Your task to perform on an android device: Clear the cart on target. Search for "razer blackwidow" on target, select the first entry, add it to the cart, then select checkout. Image 0: 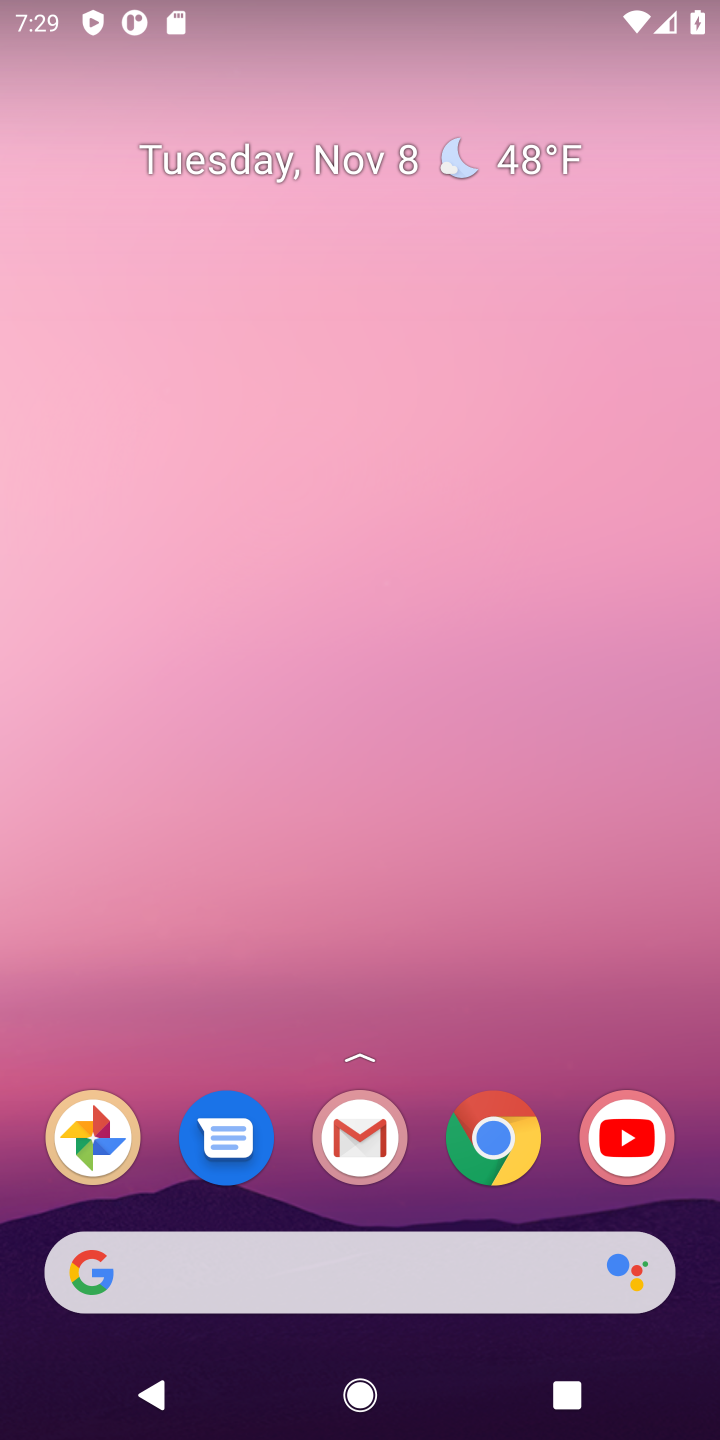
Step 0: click (500, 1148)
Your task to perform on an android device: Clear the cart on target. Search for "razer blackwidow" on target, select the first entry, add it to the cart, then select checkout. Image 1: 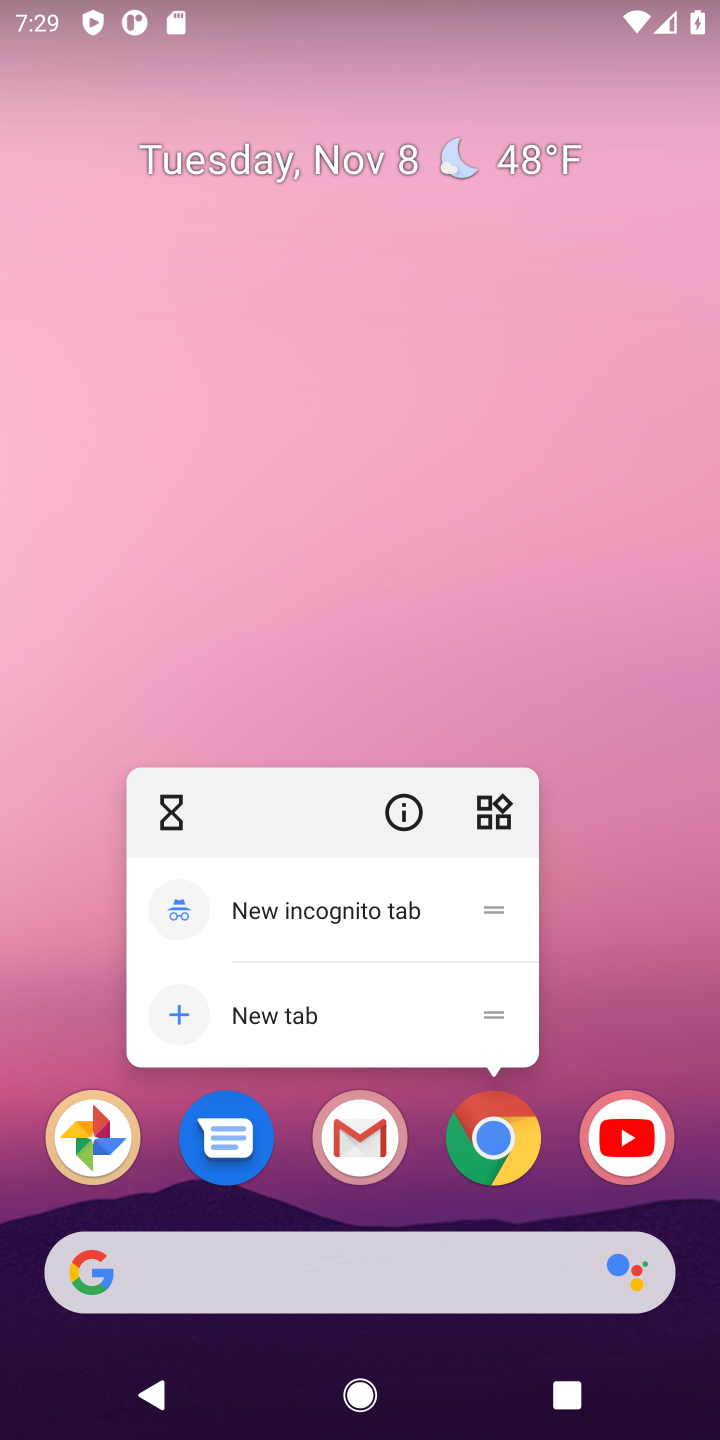
Step 1: click (500, 1146)
Your task to perform on an android device: Clear the cart on target. Search for "razer blackwidow" on target, select the first entry, add it to the cart, then select checkout. Image 2: 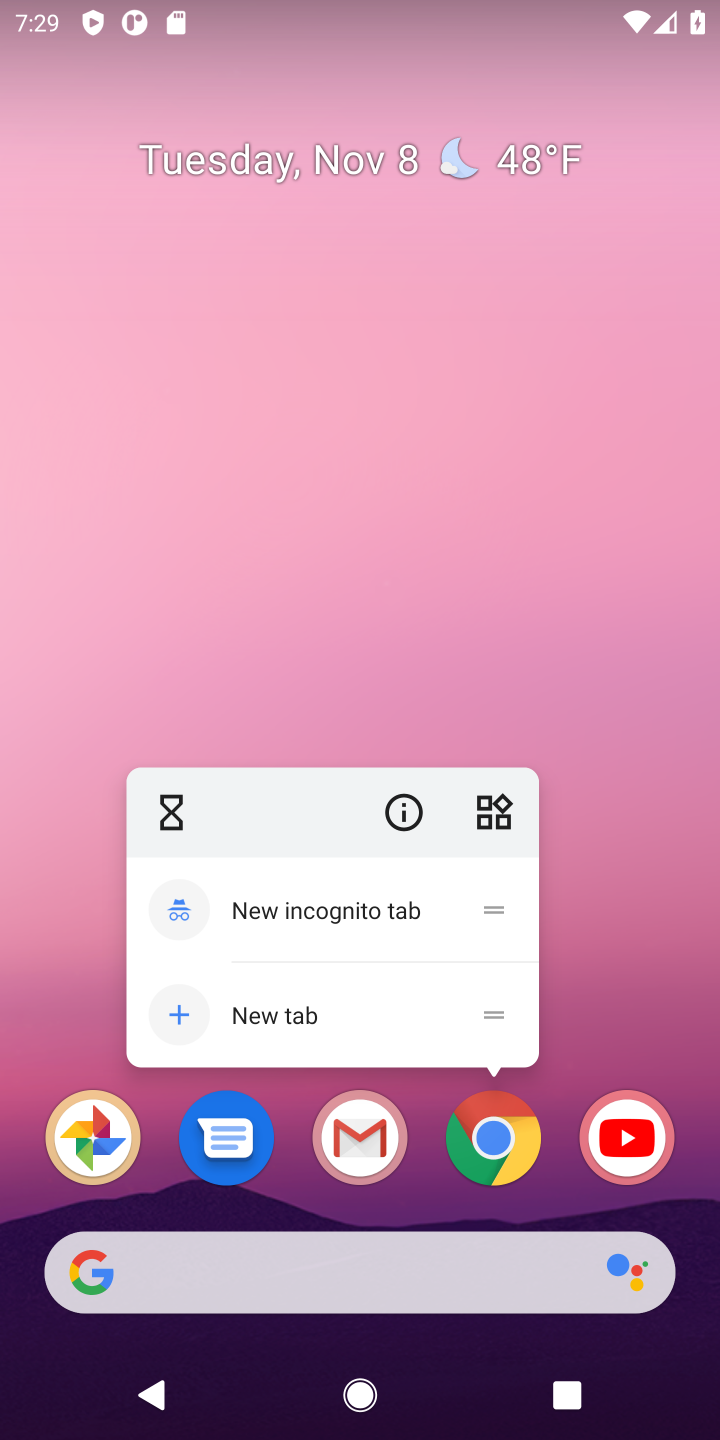
Step 2: click (484, 1152)
Your task to perform on an android device: Clear the cart on target. Search for "razer blackwidow" on target, select the first entry, add it to the cart, then select checkout. Image 3: 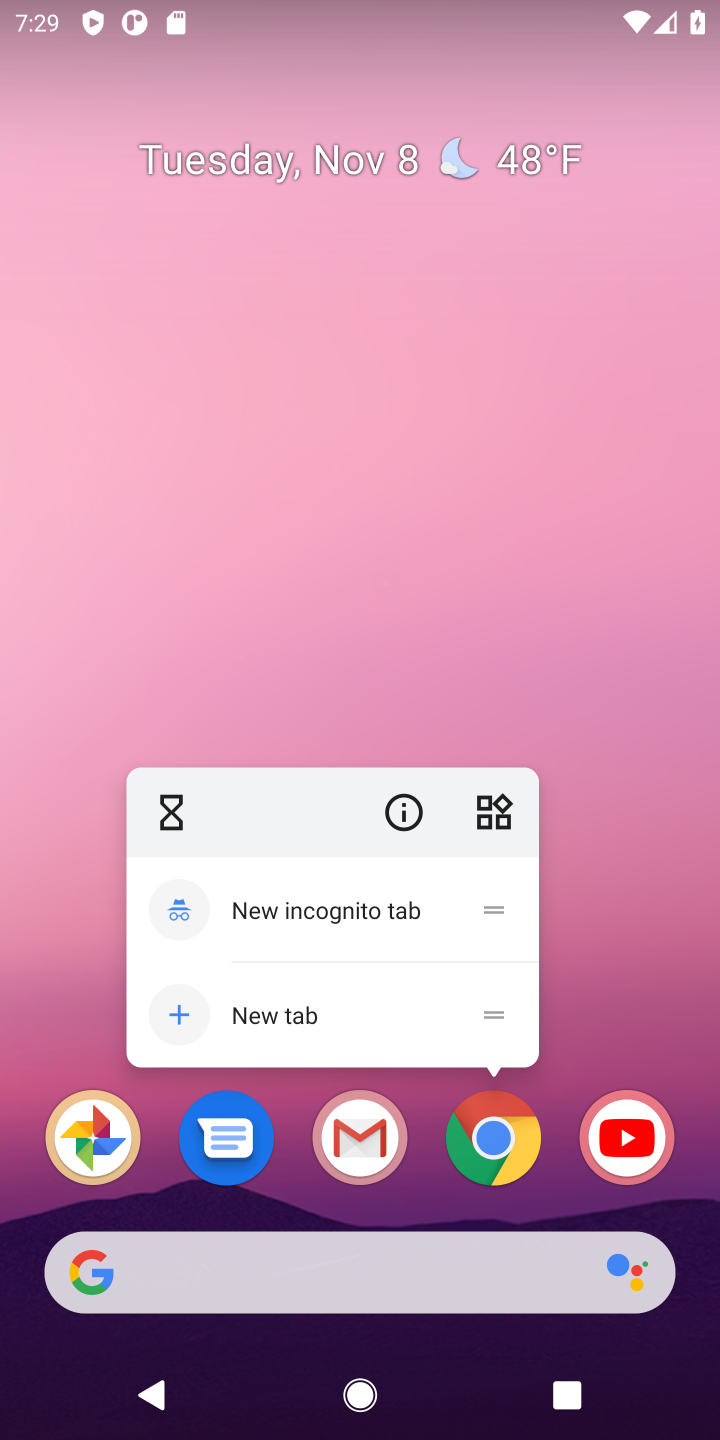
Step 3: click (505, 1149)
Your task to perform on an android device: Clear the cart on target. Search for "razer blackwidow" on target, select the first entry, add it to the cart, then select checkout. Image 4: 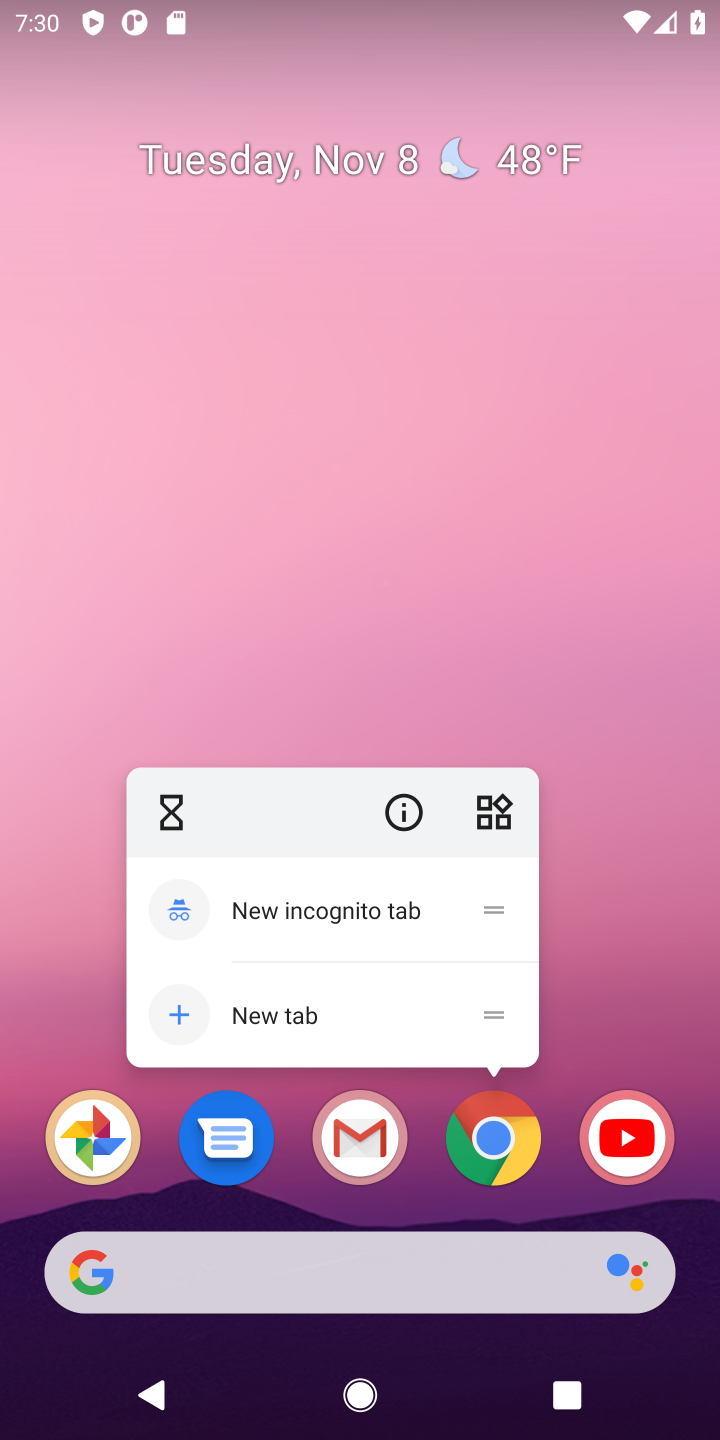
Step 4: click (498, 1129)
Your task to perform on an android device: Clear the cart on target. Search for "razer blackwidow" on target, select the first entry, add it to the cart, then select checkout. Image 5: 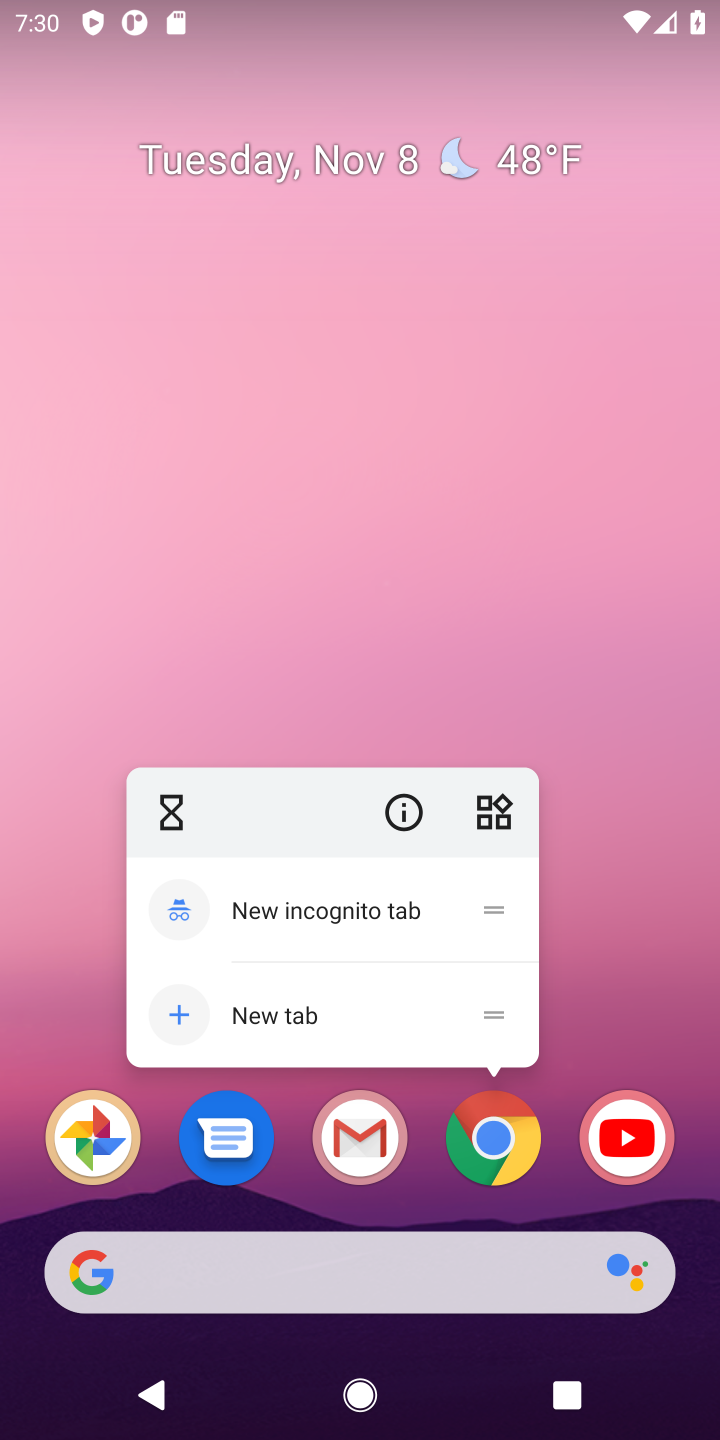
Step 5: click (498, 1137)
Your task to perform on an android device: Clear the cart on target. Search for "razer blackwidow" on target, select the first entry, add it to the cart, then select checkout. Image 6: 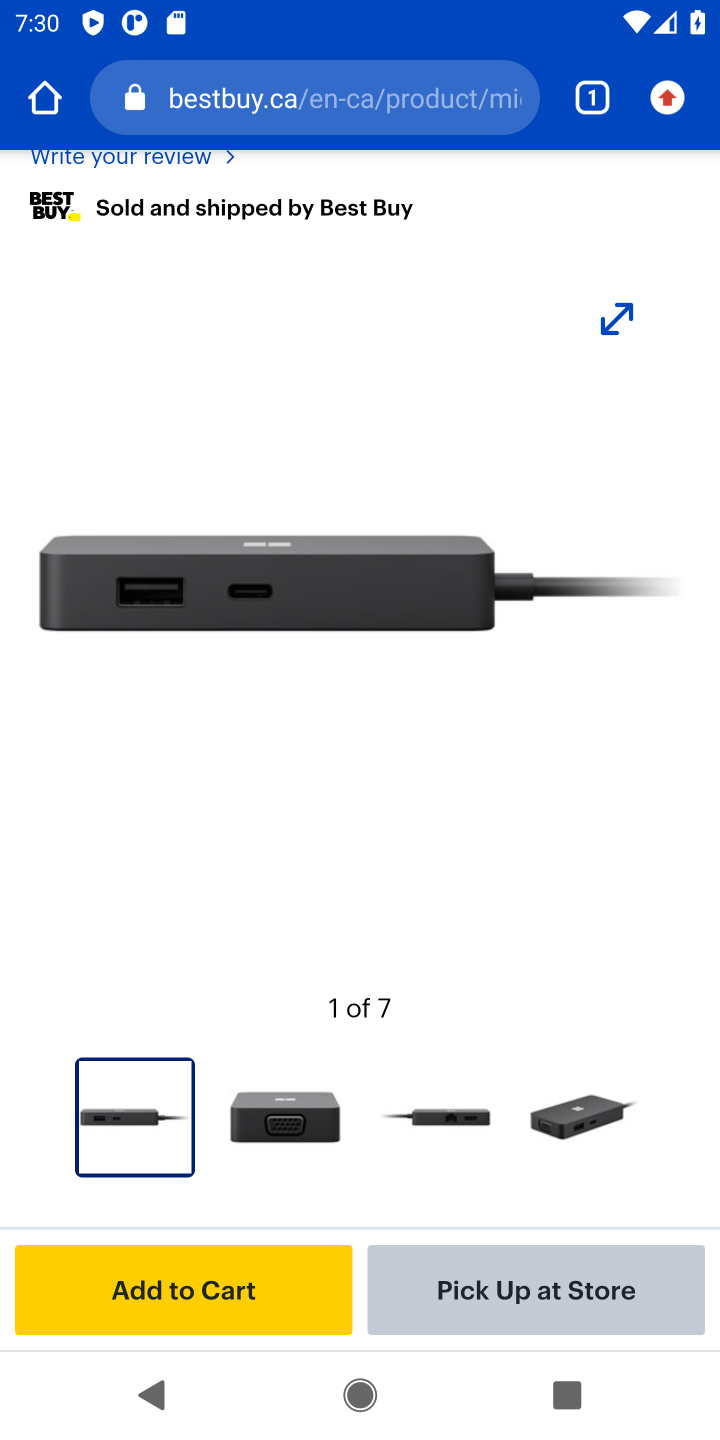
Step 6: click (306, 81)
Your task to perform on an android device: Clear the cart on target. Search for "razer blackwidow" on target, select the first entry, add it to the cart, then select checkout. Image 7: 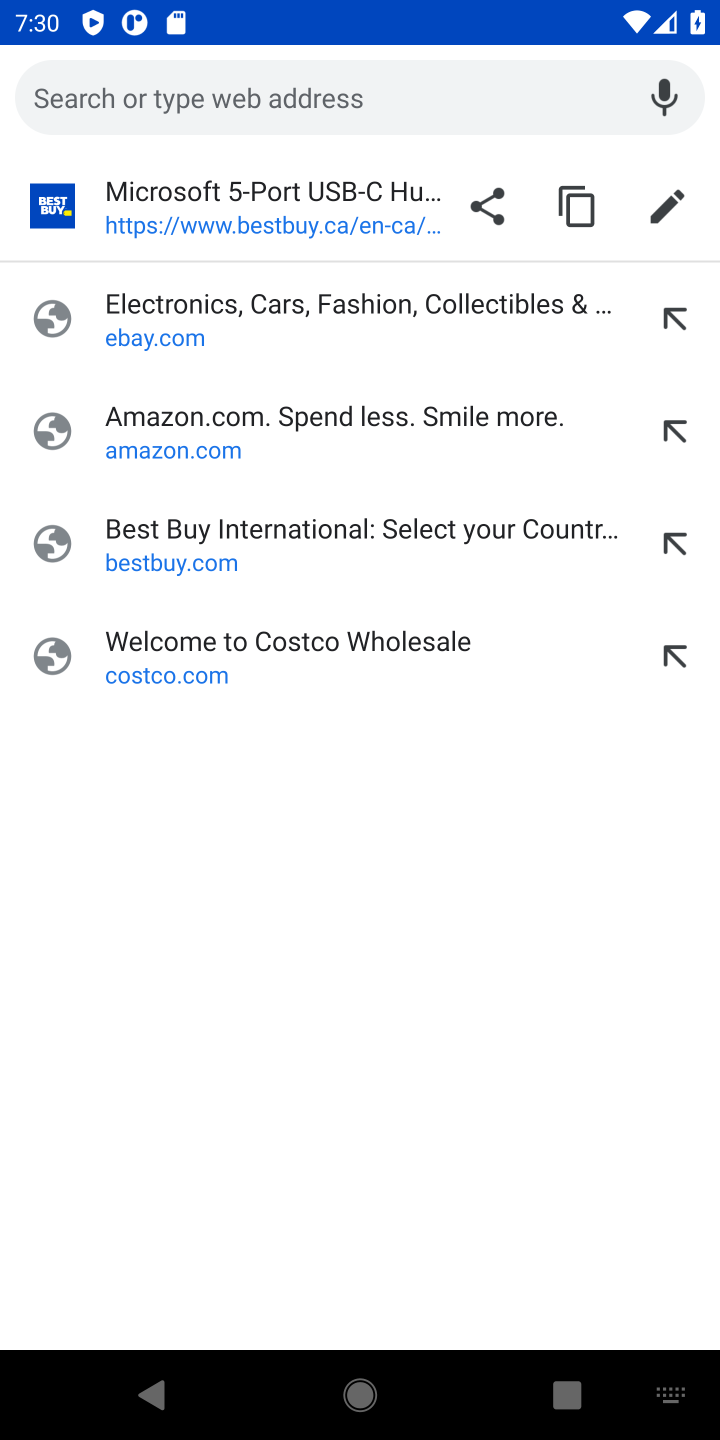
Step 7: press enter
Your task to perform on an android device: Clear the cart on target. Search for "razer blackwidow" on target, select the first entry, add it to the cart, then select checkout. Image 8: 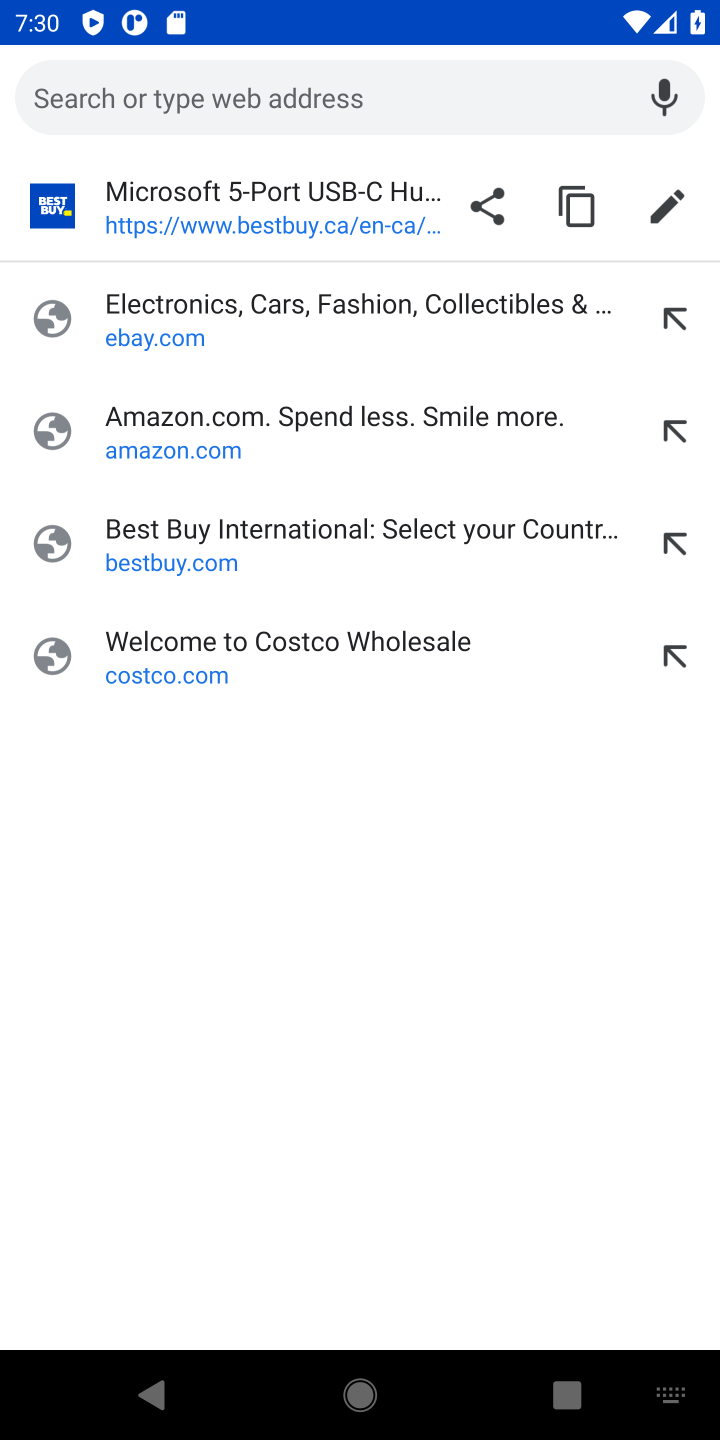
Step 8: type " target"
Your task to perform on an android device: Clear the cart on target. Search for "razer blackwidow" on target, select the first entry, add it to the cart, then select checkout. Image 9: 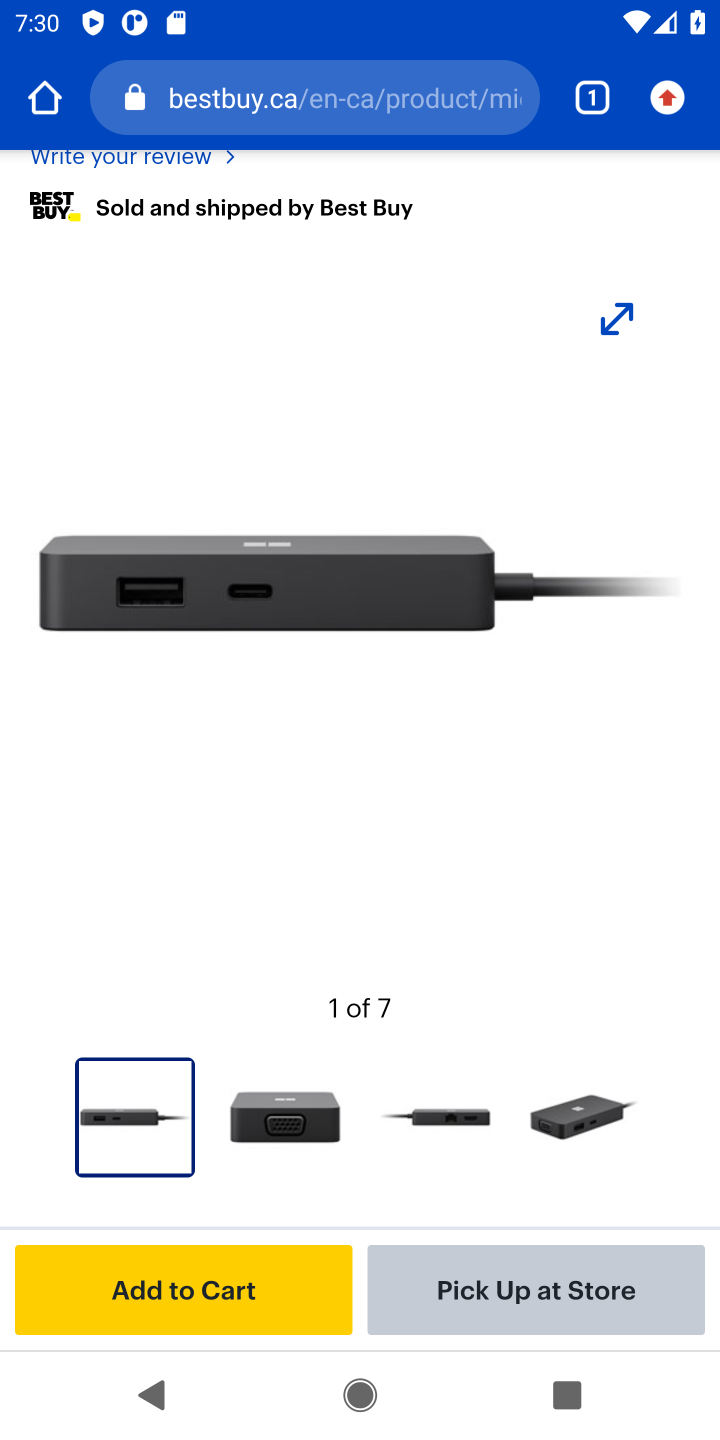
Step 9: click (339, 103)
Your task to perform on an android device: Clear the cart on target. Search for "razer blackwidow" on target, select the first entry, add it to the cart, then select checkout. Image 10: 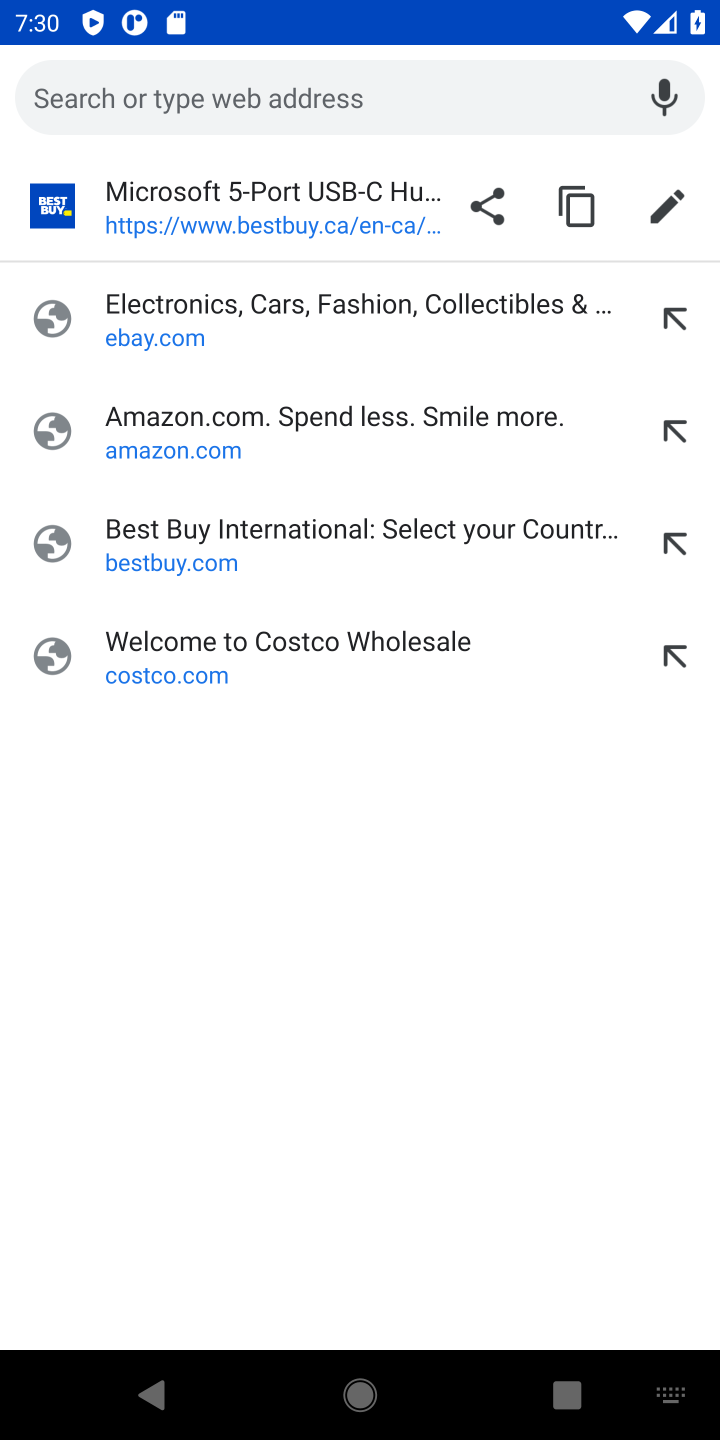
Step 10: click (326, 73)
Your task to perform on an android device: Clear the cart on target. Search for "razer blackwidow" on target, select the first entry, add it to the cart, then select checkout. Image 11: 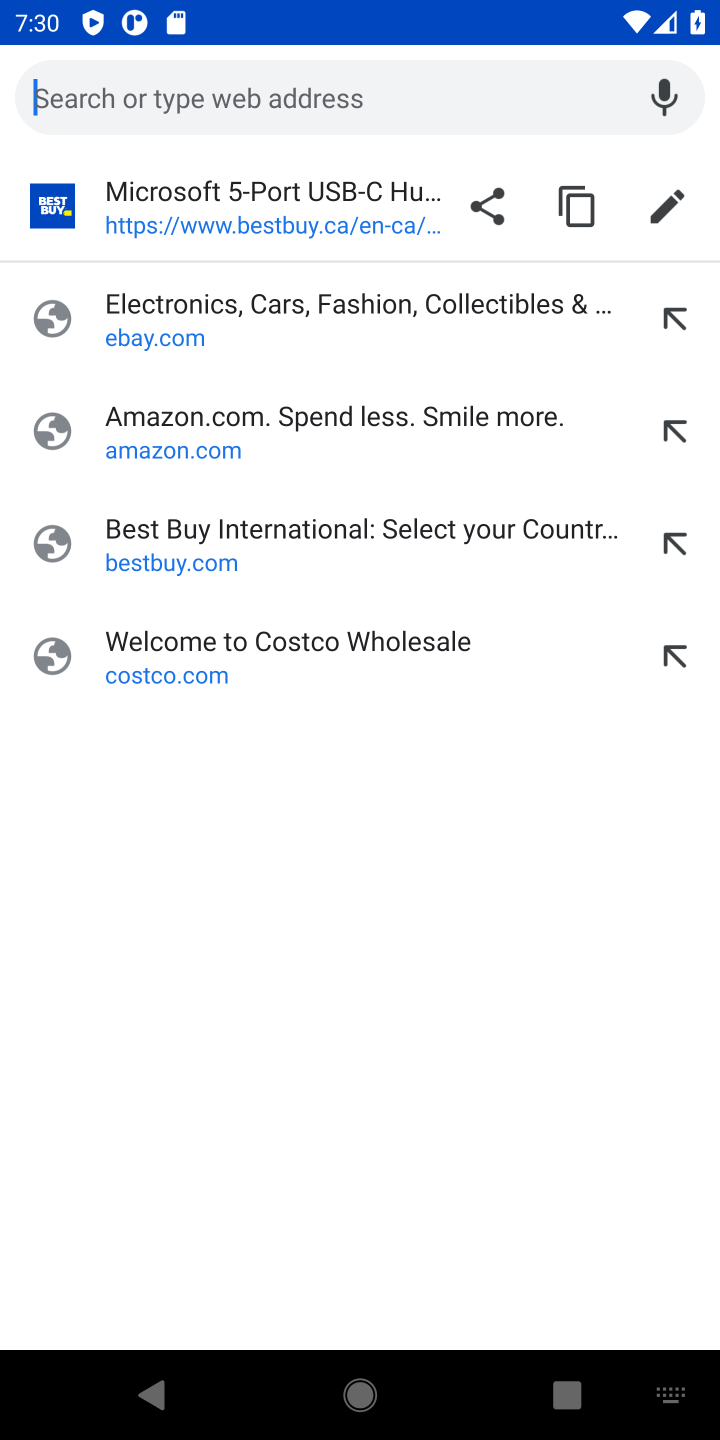
Step 11: type " target"
Your task to perform on an android device: Clear the cart on target. Search for "razer blackwidow" on target, select the first entry, add it to the cart, then select checkout. Image 12: 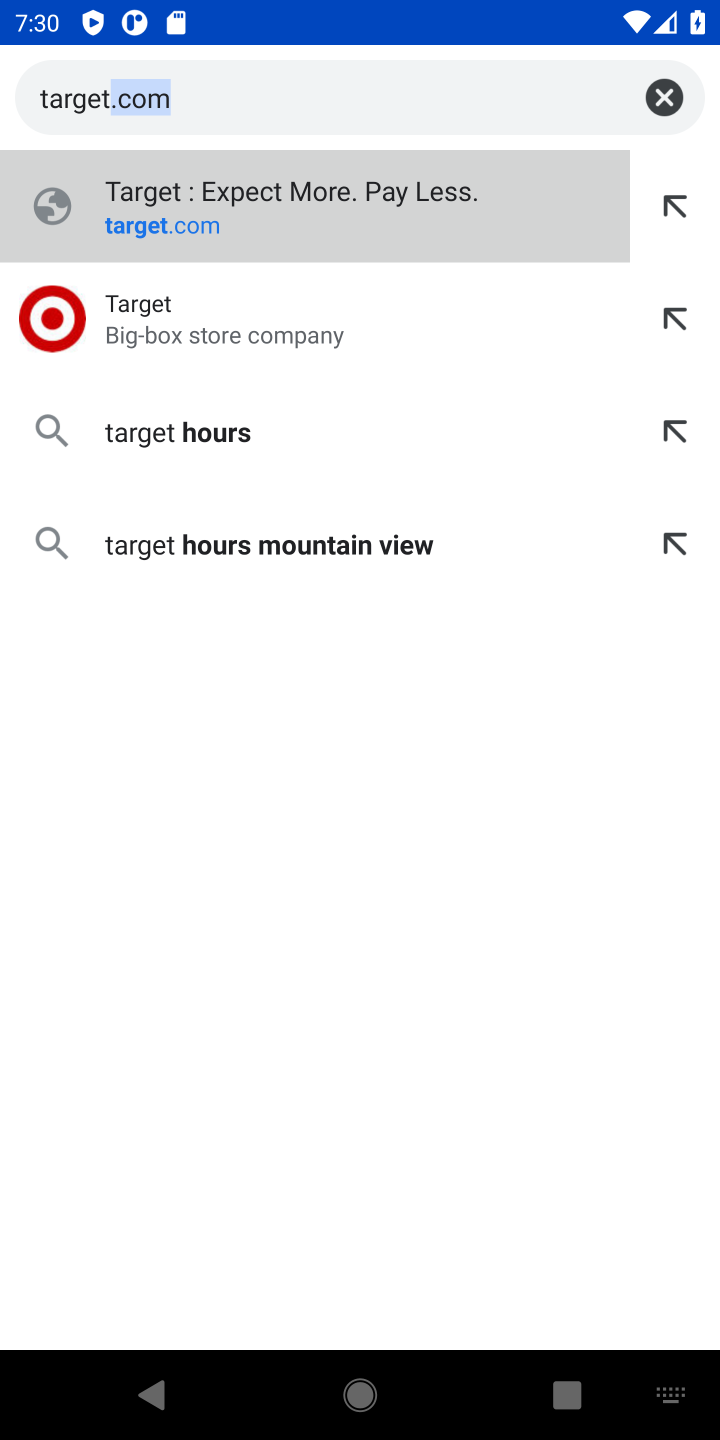
Step 12: press enter
Your task to perform on an android device: Clear the cart on target. Search for "razer blackwidow" on target, select the first entry, add it to the cart, then select checkout. Image 13: 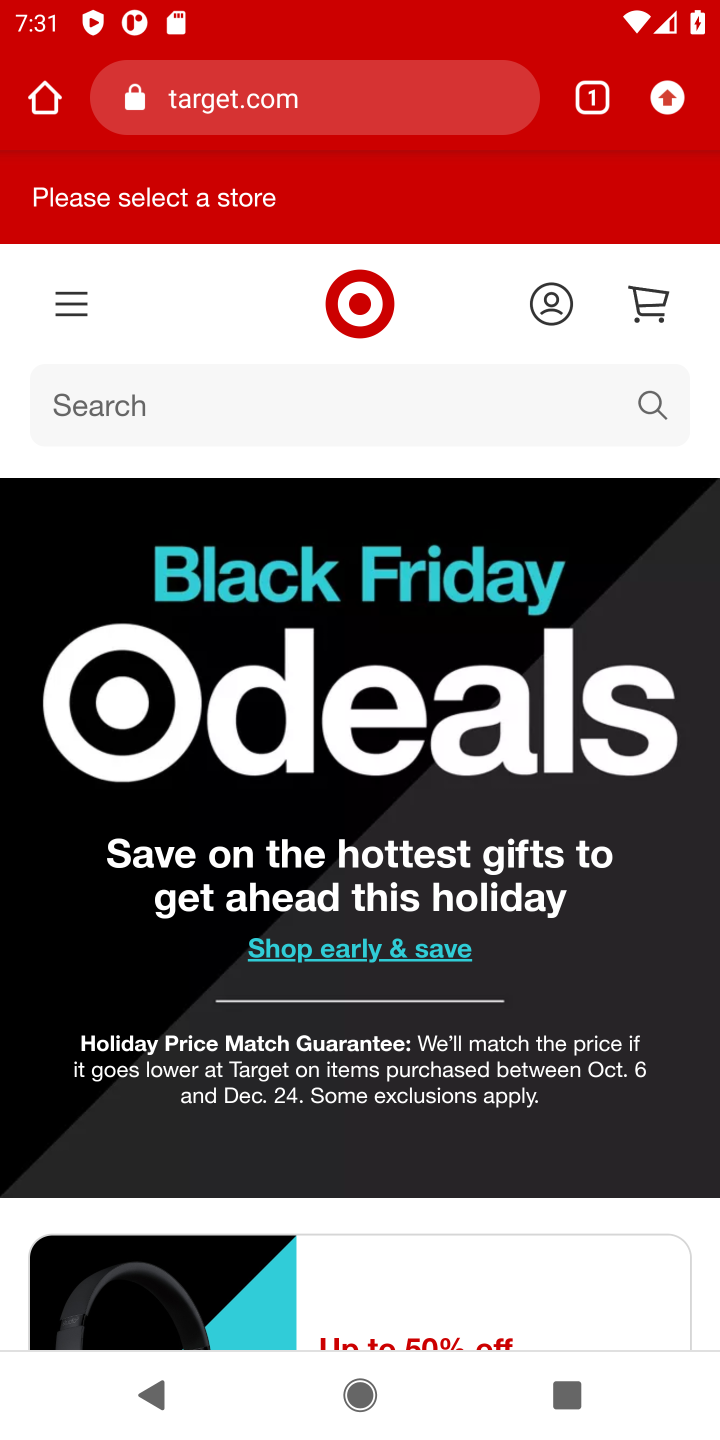
Step 13: click (332, 375)
Your task to perform on an android device: Clear the cart on target. Search for "razer blackwidow" on target, select the first entry, add it to the cart, then select checkout. Image 14: 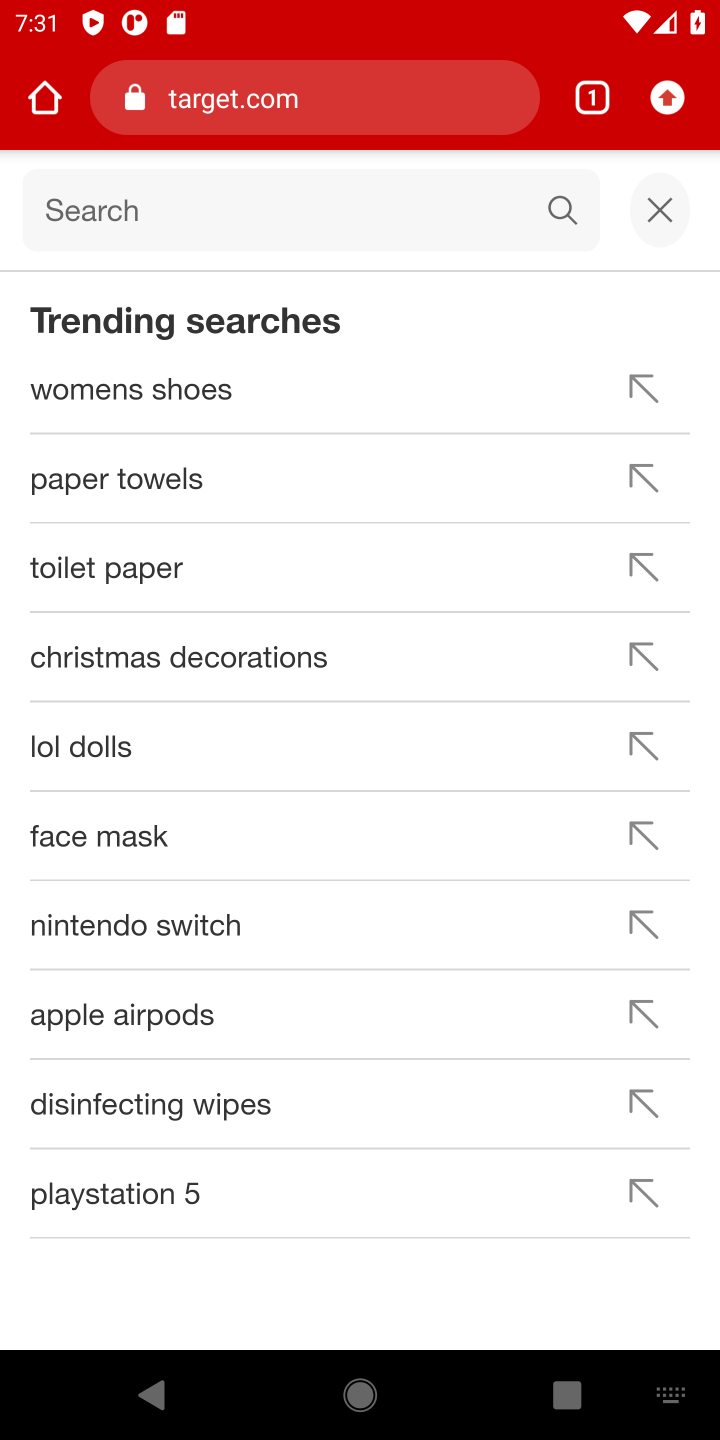
Step 14: type "razer blackwidow"
Your task to perform on an android device: Clear the cart on target. Search for "razer blackwidow" on target, select the first entry, add it to the cart, then select checkout. Image 15: 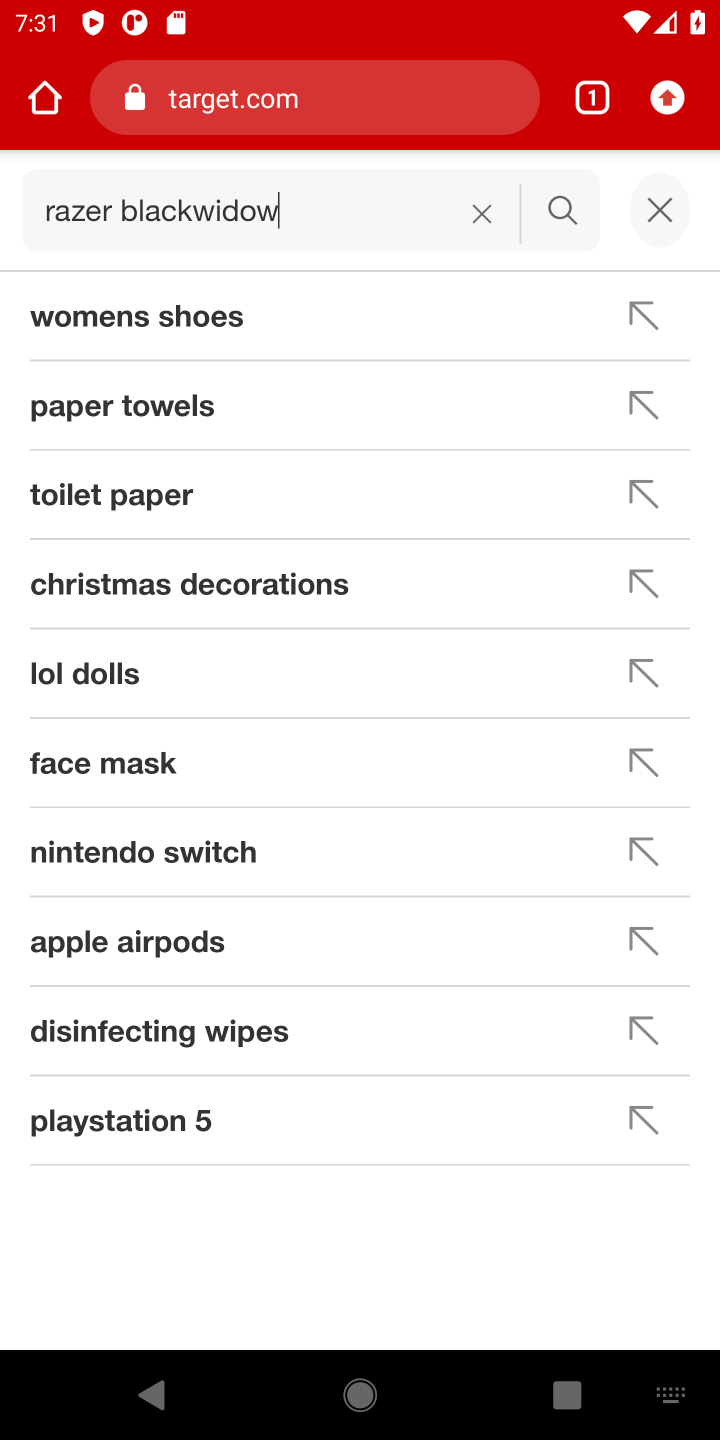
Step 15: press enter
Your task to perform on an android device: Clear the cart on target. Search for "razer blackwidow" on target, select the first entry, add it to the cart, then select checkout. Image 16: 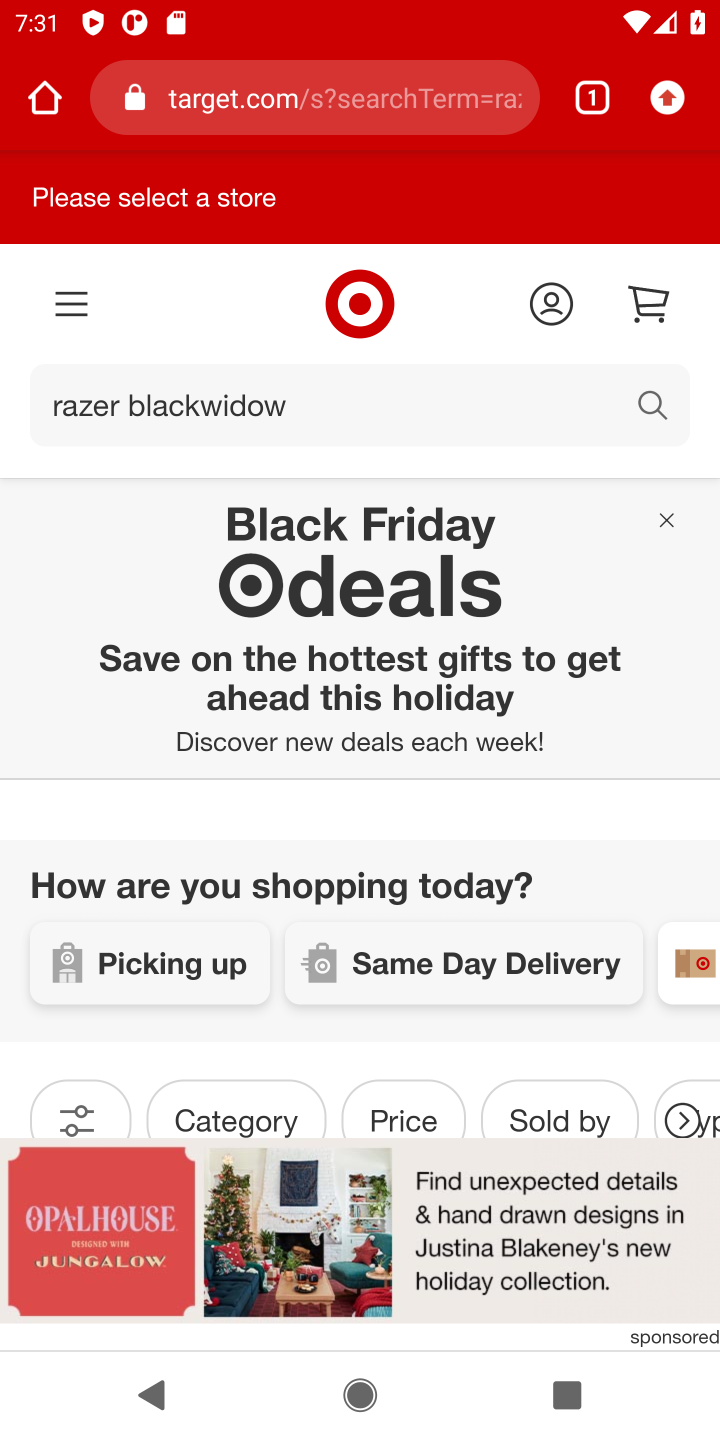
Step 16: drag from (333, 1176) to (637, 296)
Your task to perform on an android device: Clear the cart on target. Search for "razer blackwidow" on target, select the first entry, add it to the cart, then select checkout. Image 17: 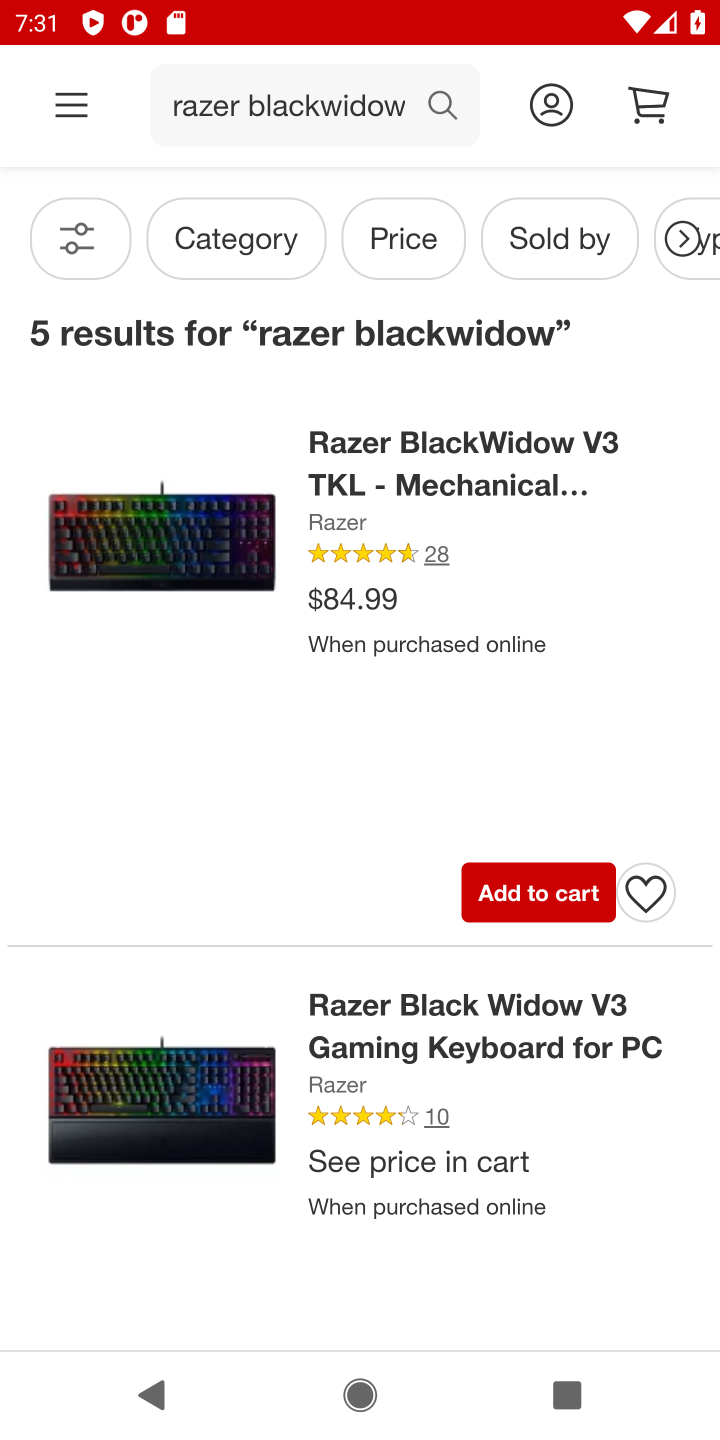
Step 17: click (527, 886)
Your task to perform on an android device: Clear the cart on target. Search for "razer blackwidow" on target, select the first entry, add it to the cart, then select checkout. Image 18: 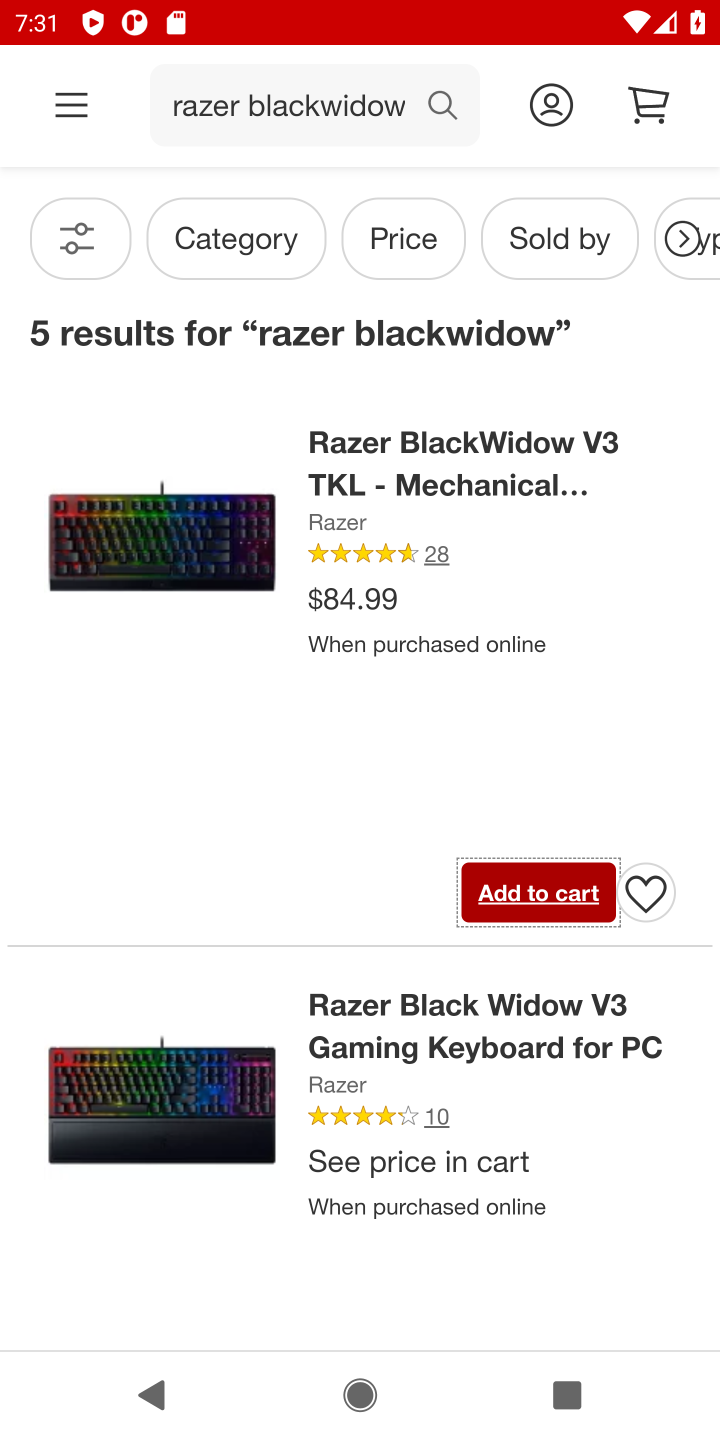
Step 18: click (562, 897)
Your task to perform on an android device: Clear the cart on target. Search for "razer blackwidow" on target, select the first entry, add it to the cart, then select checkout. Image 19: 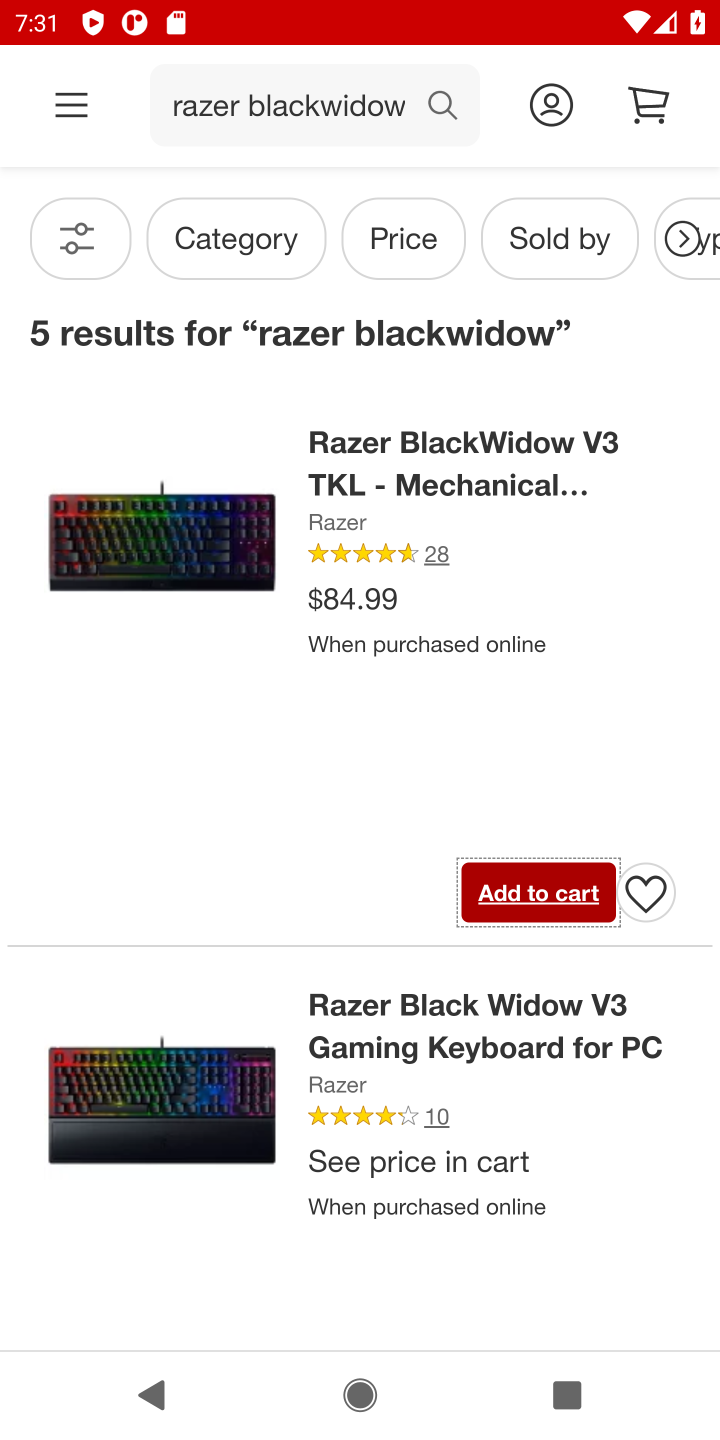
Step 19: click (558, 888)
Your task to perform on an android device: Clear the cart on target. Search for "razer blackwidow" on target, select the first entry, add it to the cart, then select checkout. Image 20: 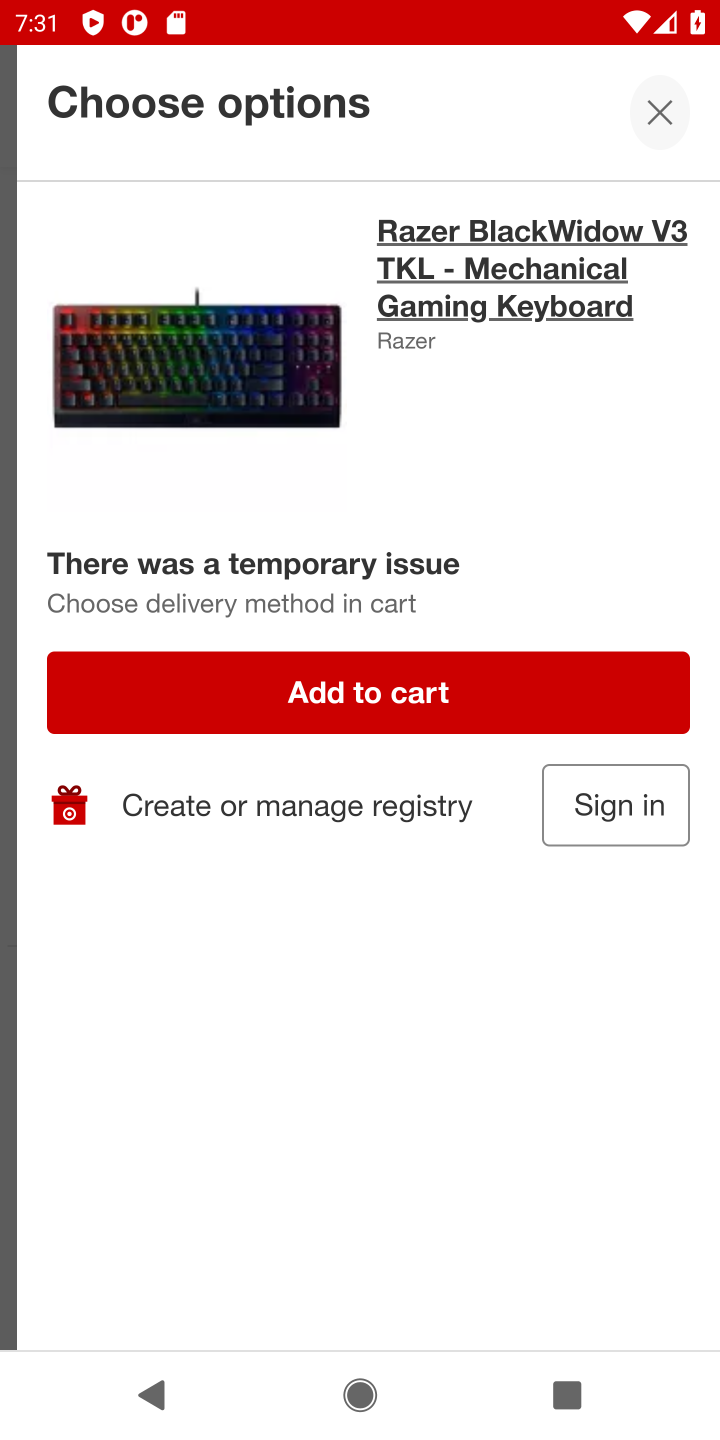
Step 20: click (383, 694)
Your task to perform on an android device: Clear the cart on target. Search for "razer blackwidow" on target, select the first entry, add it to the cart, then select checkout. Image 21: 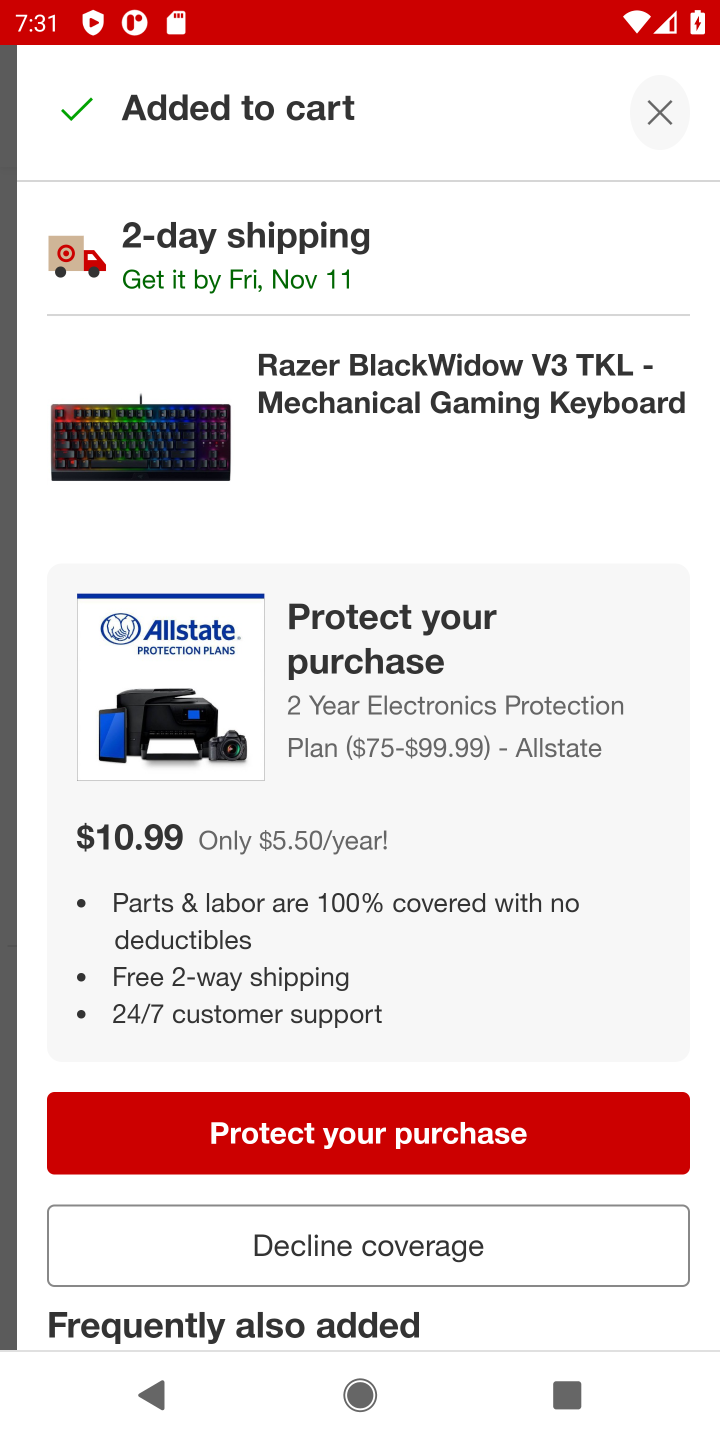
Step 21: click (458, 1245)
Your task to perform on an android device: Clear the cart on target. Search for "razer blackwidow" on target, select the first entry, add it to the cart, then select checkout. Image 22: 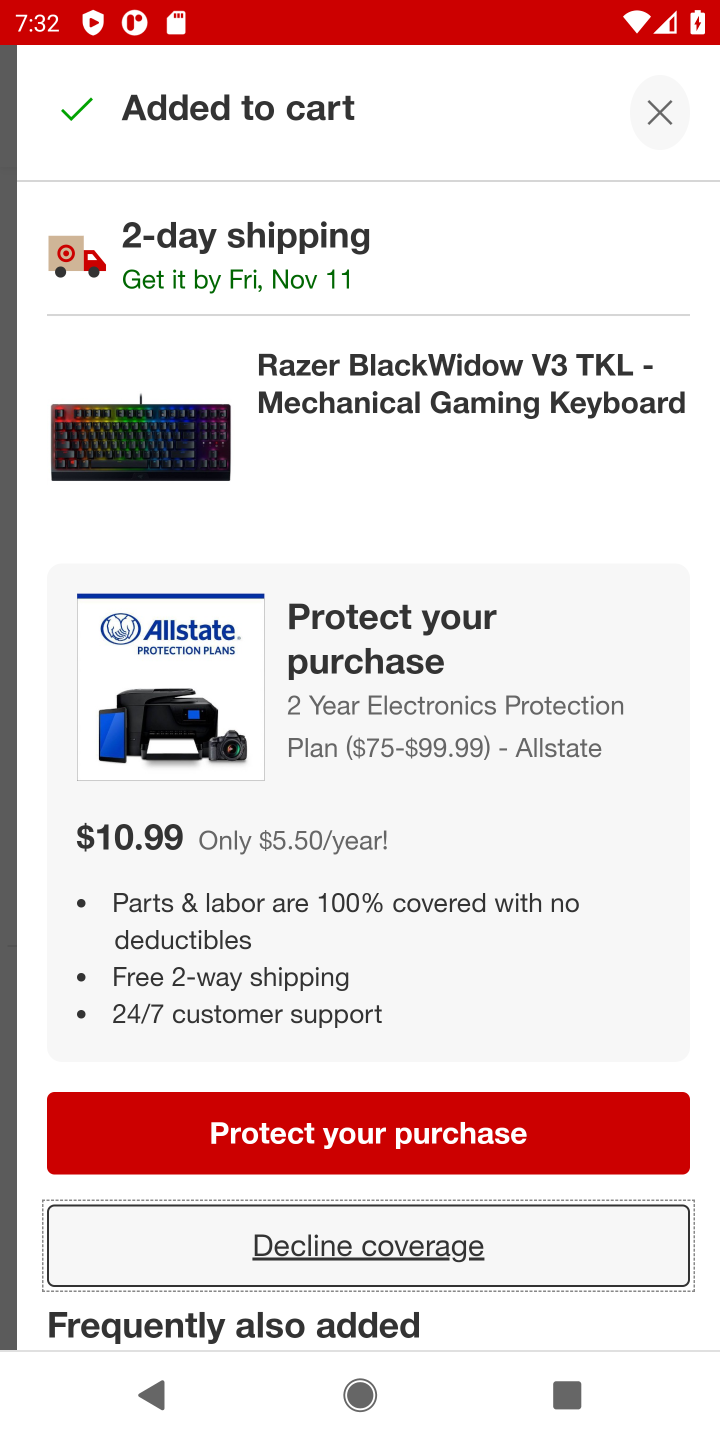
Step 22: click (389, 1251)
Your task to perform on an android device: Clear the cart on target. Search for "razer blackwidow" on target, select the first entry, add it to the cart, then select checkout. Image 23: 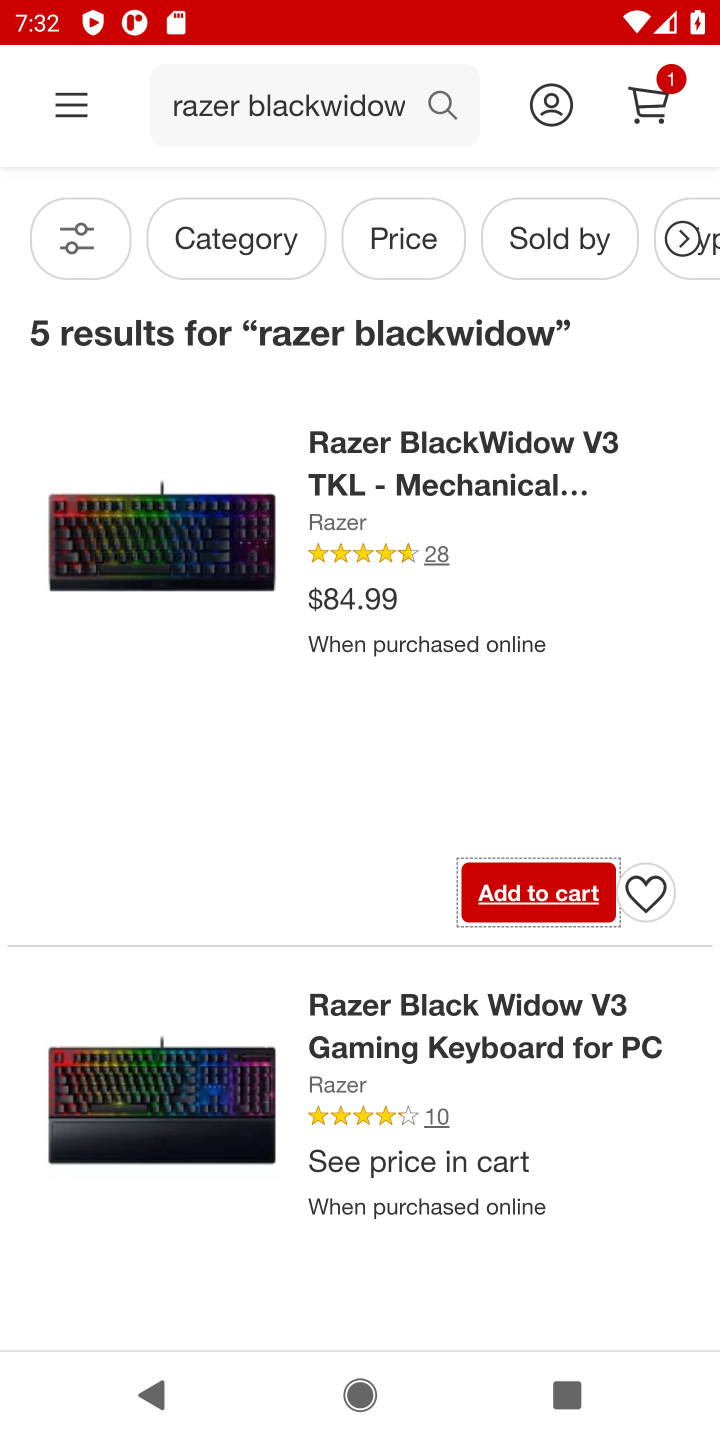
Step 23: click (653, 81)
Your task to perform on an android device: Clear the cart on target. Search for "razer blackwidow" on target, select the first entry, add it to the cart, then select checkout. Image 24: 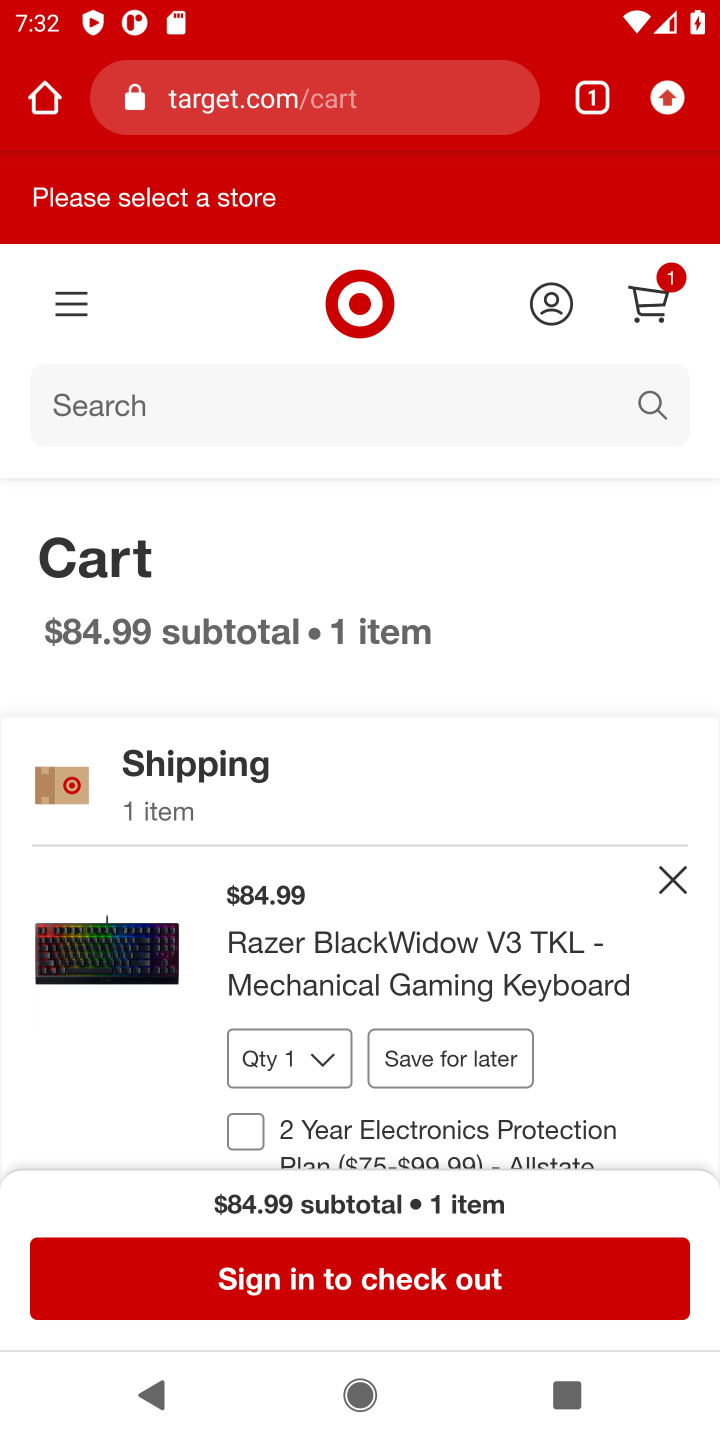
Step 24: drag from (477, 708) to (589, 146)
Your task to perform on an android device: Clear the cart on target. Search for "razer blackwidow" on target, select the first entry, add it to the cart, then select checkout. Image 25: 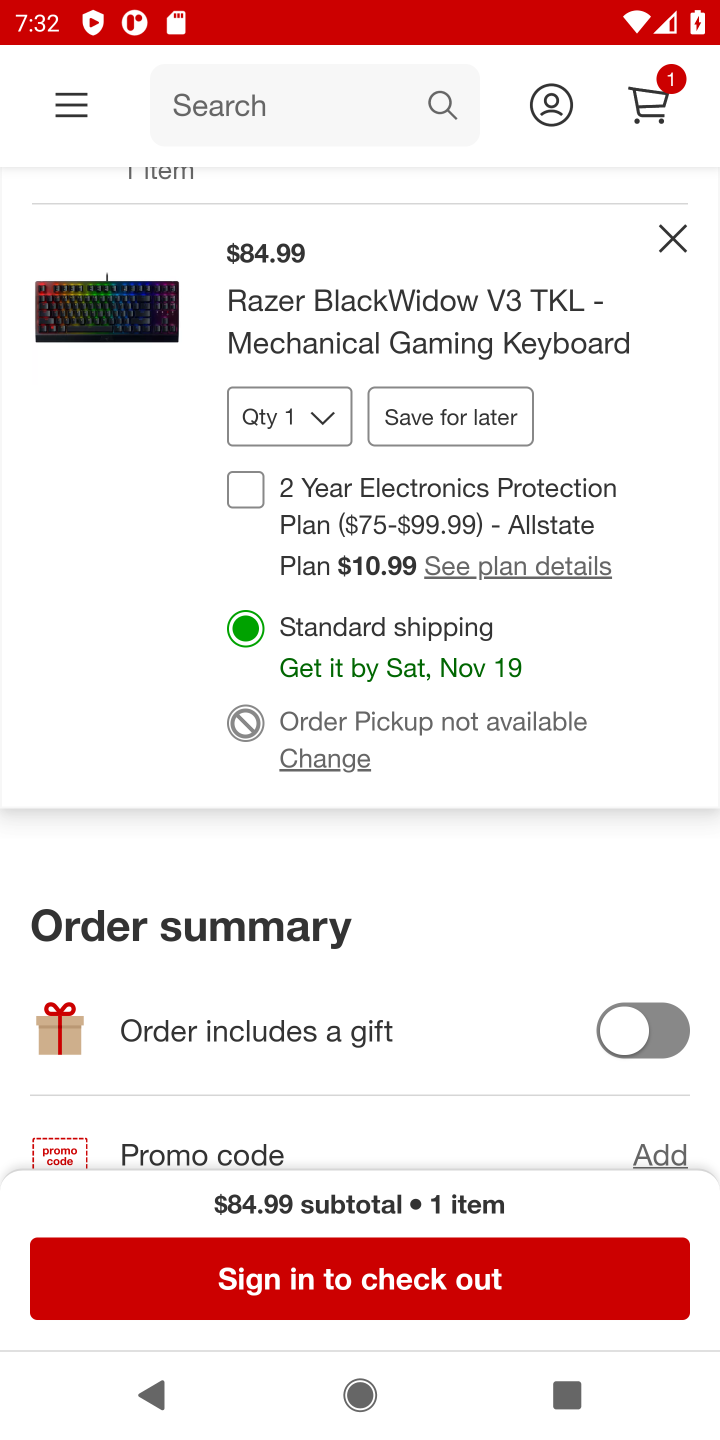
Step 25: click (414, 1281)
Your task to perform on an android device: Clear the cart on target. Search for "razer blackwidow" on target, select the first entry, add it to the cart, then select checkout. Image 26: 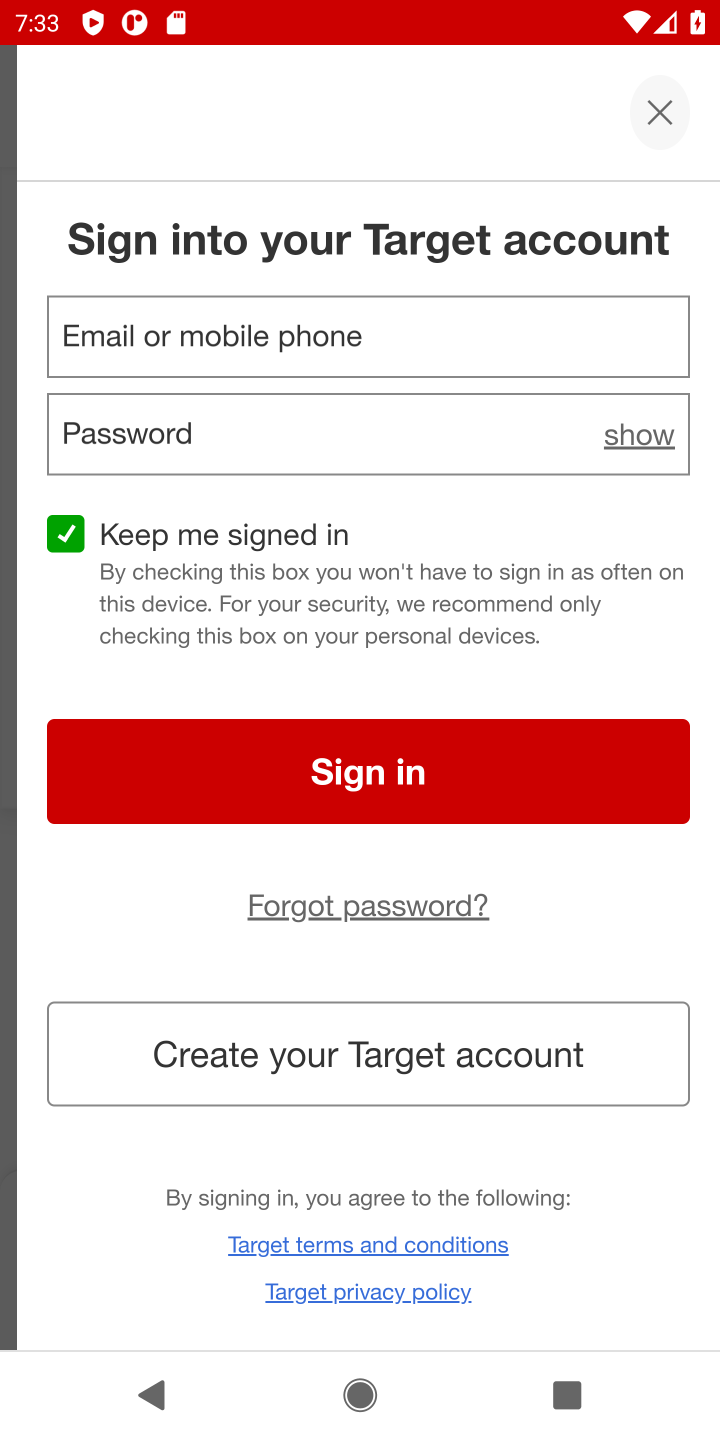
Step 26: task complete